Your task to perform on an android device: Go to display settings Image 0: 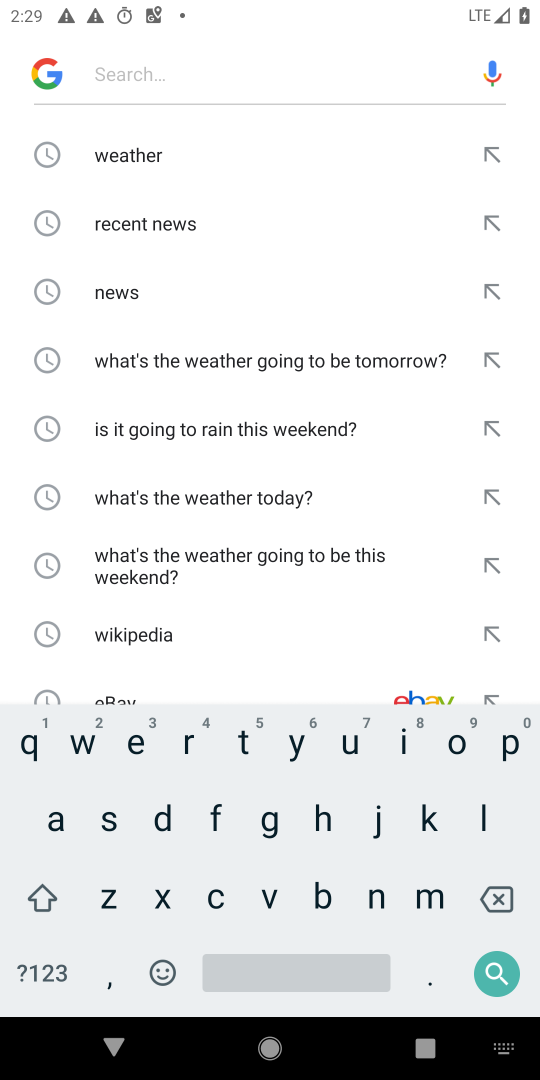
Step 0: press home button
Your task to perform on an android device: Go to display settings Image 1: 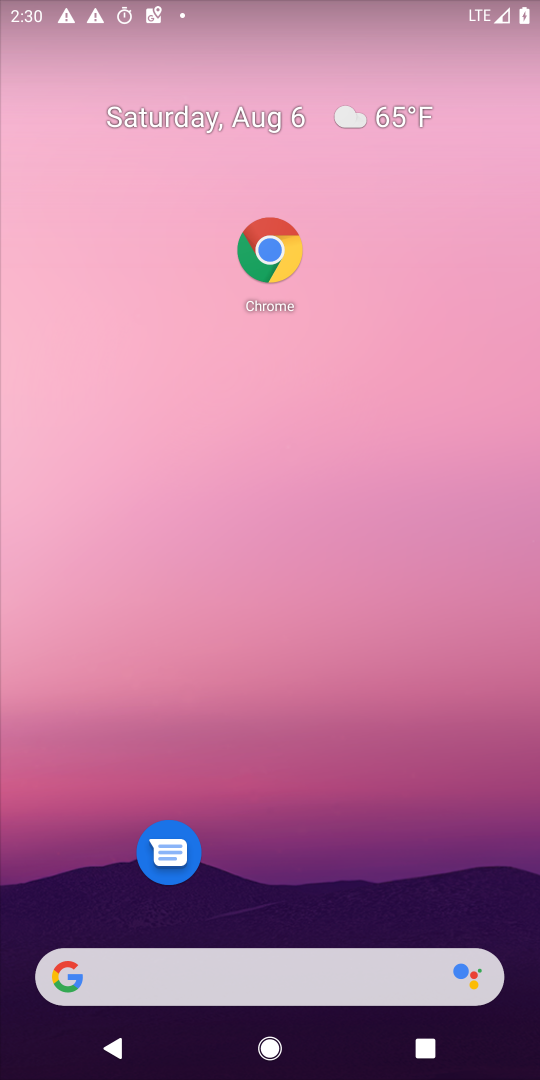
Step 1: drag from (318, 967) to (376, 353)
Your task to perform on an android device: Go to display settings Image 2: 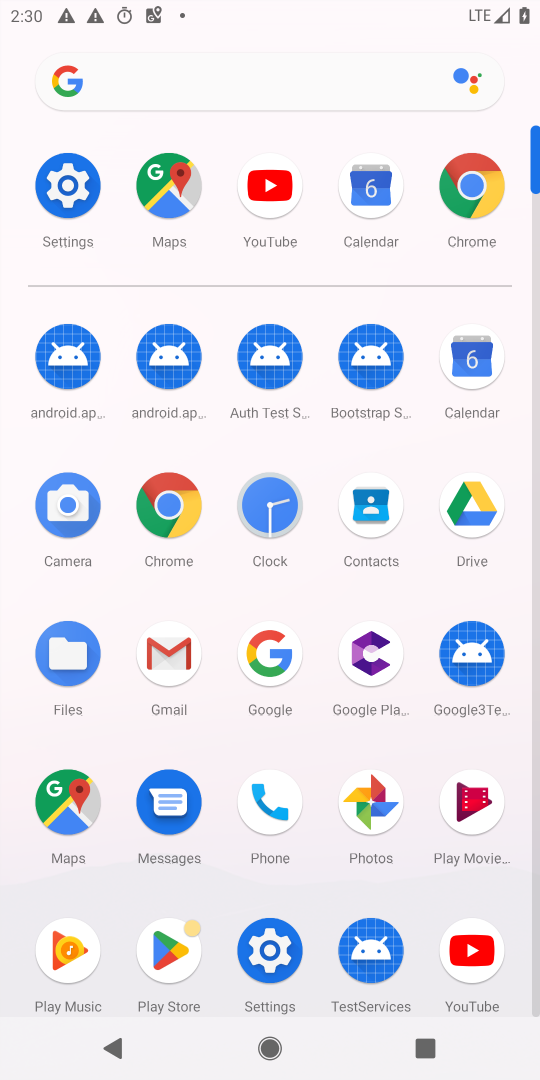
Step 2: click (53, 161)
Your task to perform on an android device: Go to display settings Image 3: 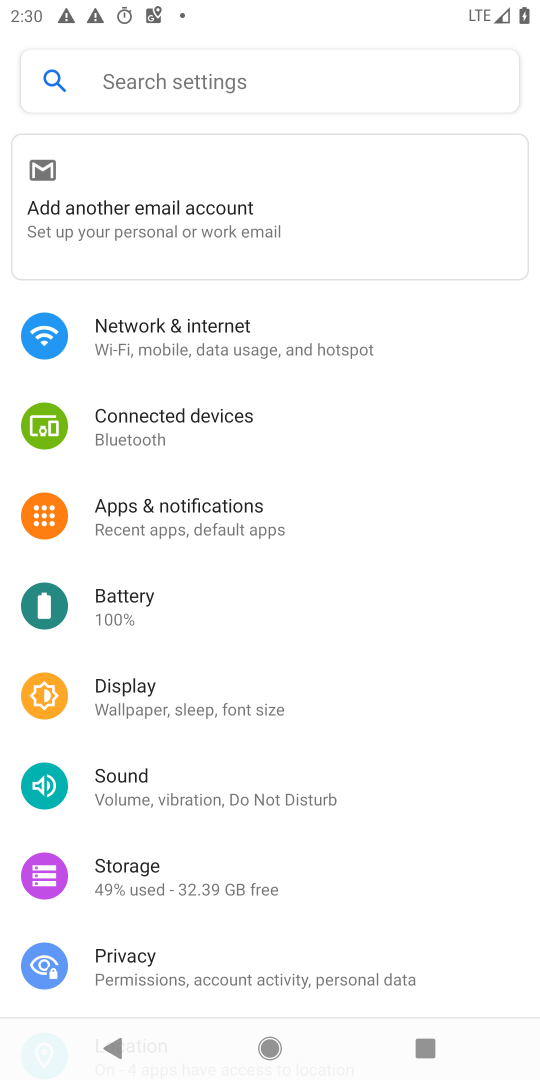
Step 3: click (112, 703)
Your task to perform on an android device: Go to display settings Image 4: 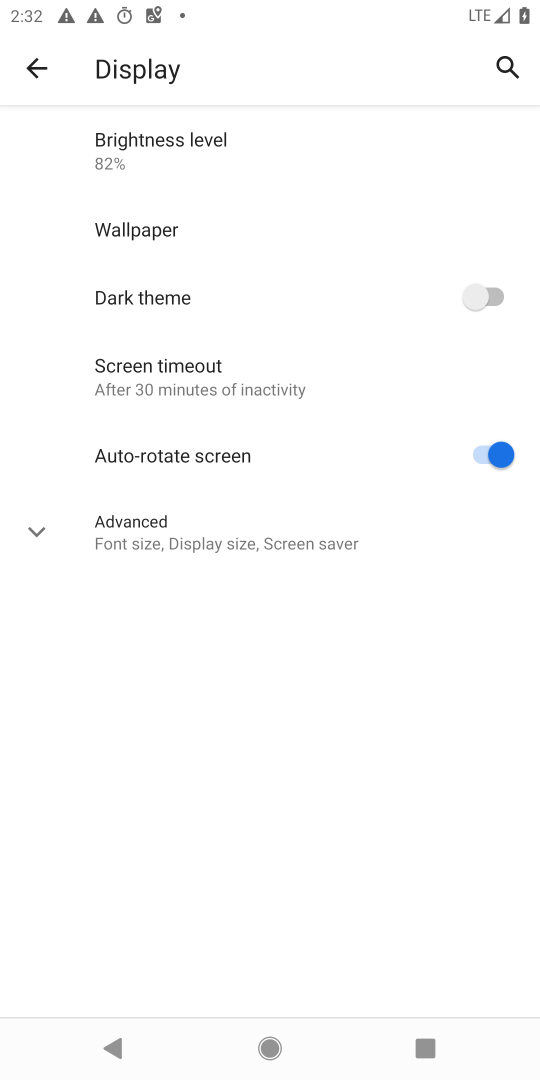
Step 4: task complete